Your task to perform on an android device: Open internet settings Image 0: 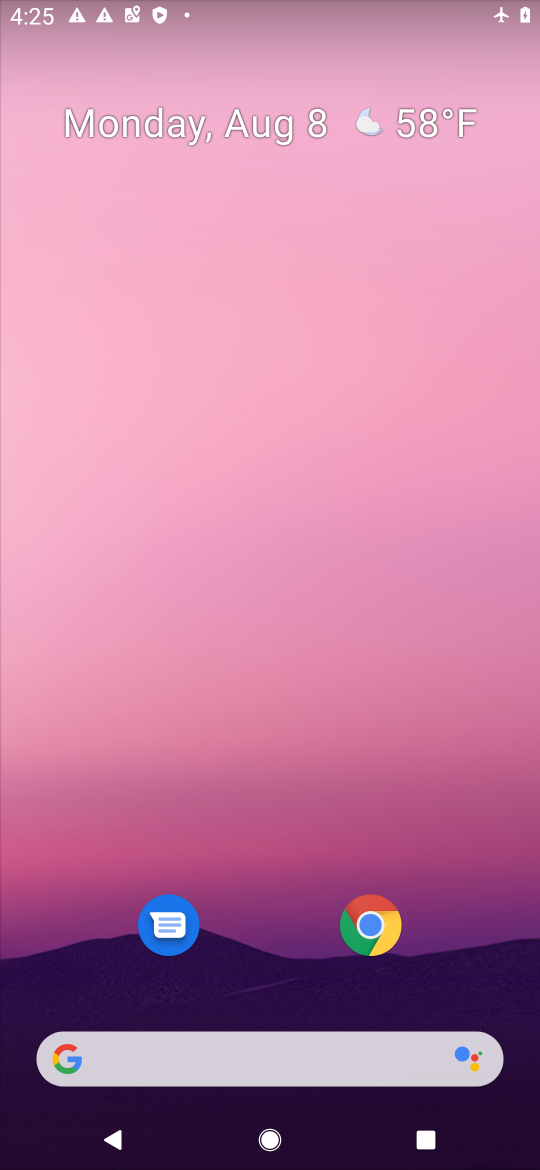
Step 0: drag from (269, 1007) to (191, 143)
Your task to perform on an android device: Open internet settings Image 1: 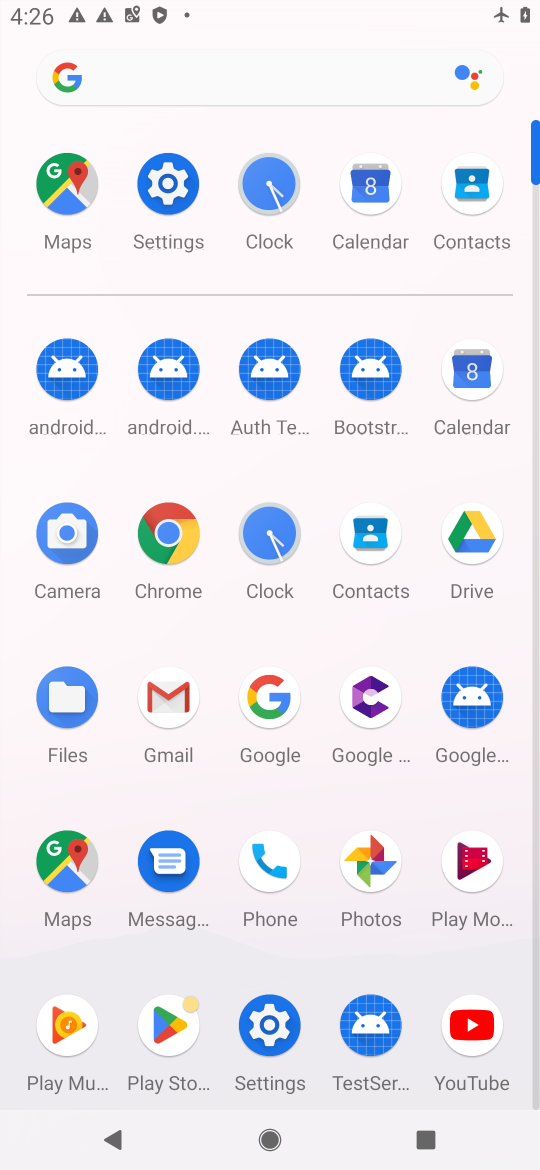
Step 1: click (163, 186)
Your task to perform on an android device: Open internet settings Image 2: 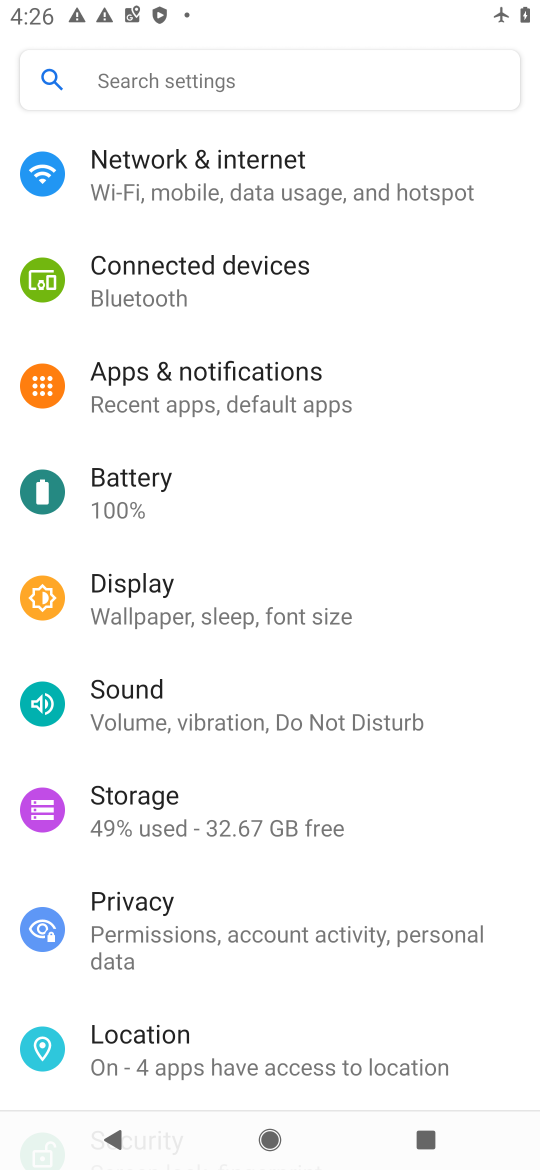
Step 2: click (170, 183)
Your task to perform on an android device: Open internet settings Image 3: 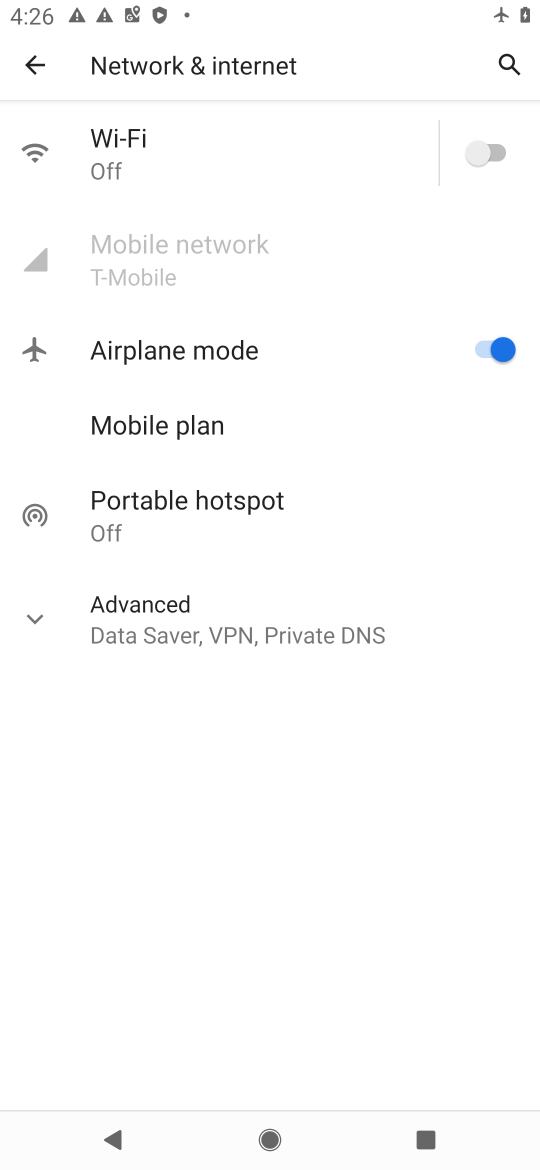
Step 3: task complete